Your task to perform on an android device: manage bookmarks in the chrome app Image 0: 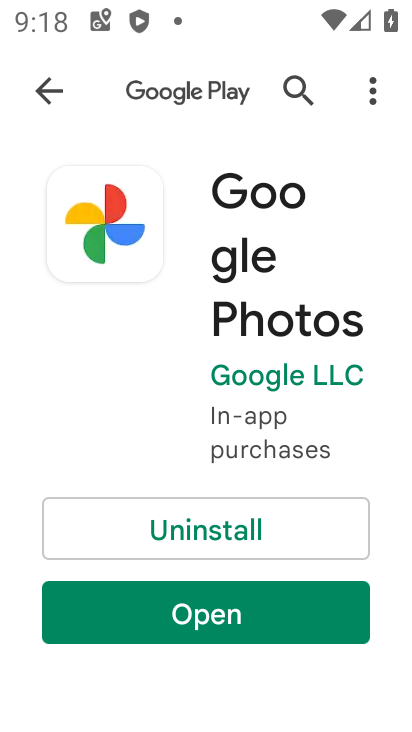
Step 0: press home button
Your task to perform on an android device: manage bookmarks in the chrome app Image 1: 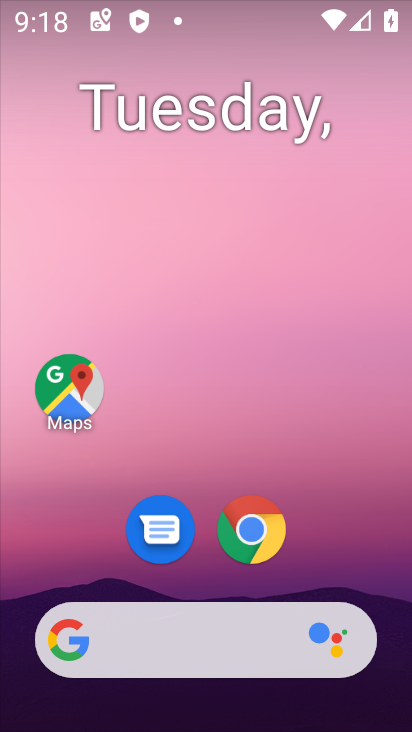
Step 1: click (250, 537)
Your task to perform on an android device: manage bookmarks in the chrome app Image 2: 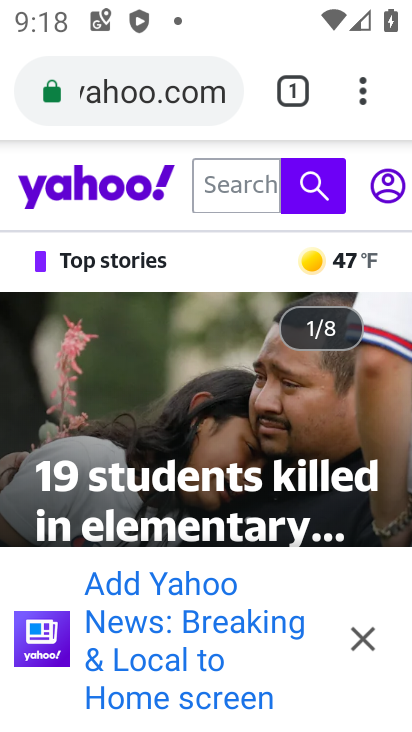
Step 2: click (372, 96)
Your task to perform on an android device: manage bookmarks in the chrome app Image 3: 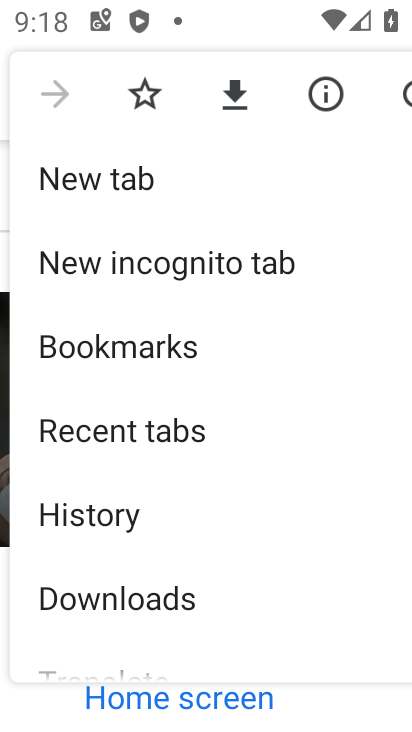
Step 3: click (108, 341)
Your task to perform on an android device: manage bookmarks in the chrome app Image 4: 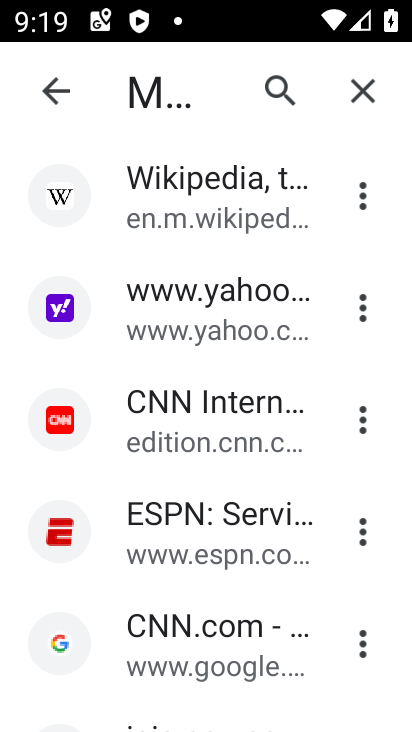
Step 4: task complete